Your task to perform on an android device: Empty the shopping cart on amazon.com. Image 0: 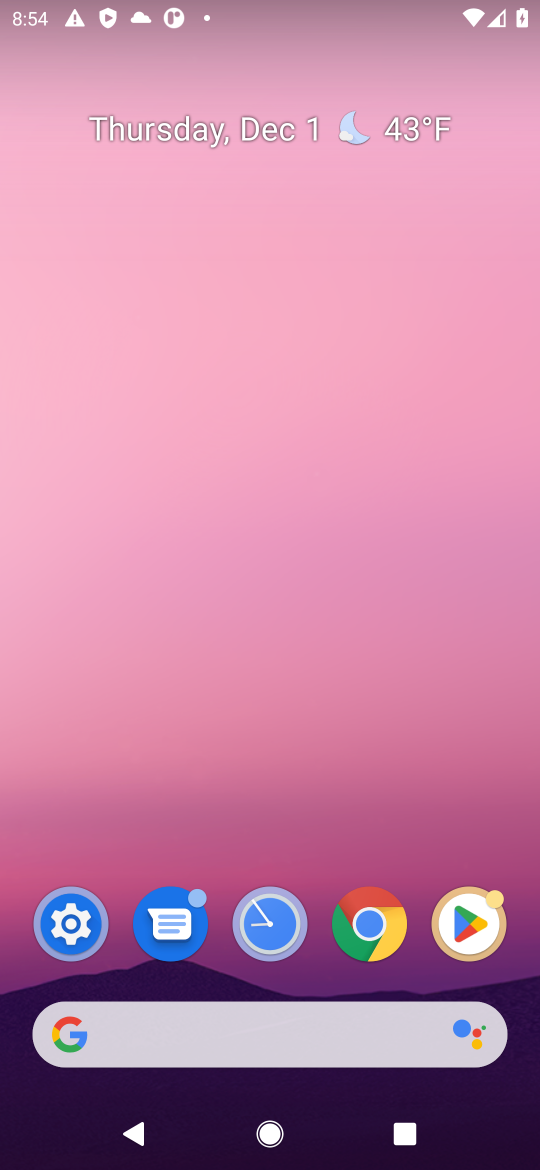
Step 0: click (320, 1049)
Your task to perform on an android device: Empty the shopping cart on amazon.com. Image 1: 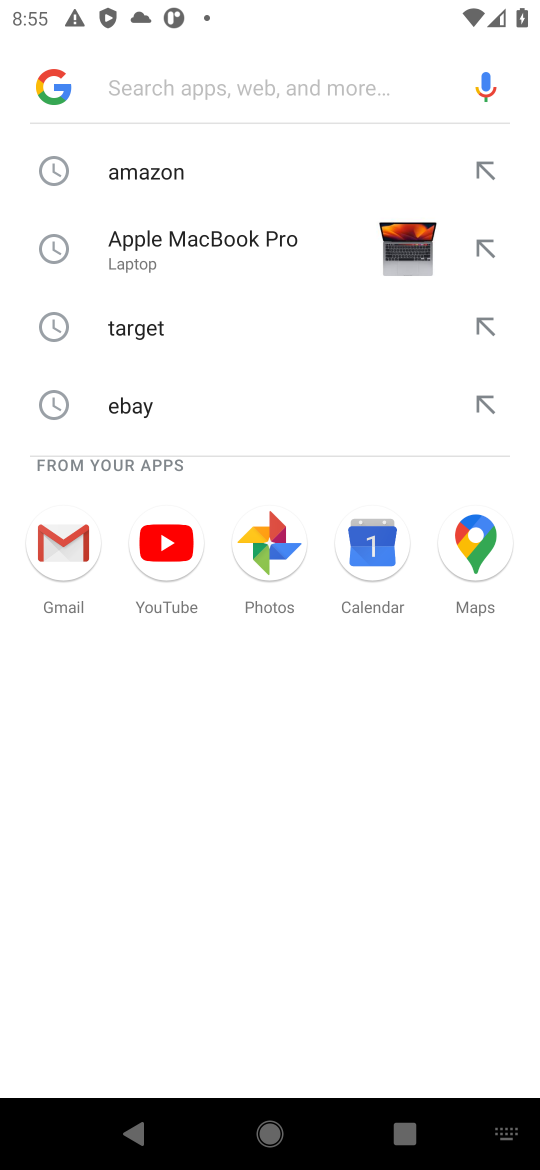
Step 1: type "amazon"
Your task to perform on an android device: Empty the shopping cart on amazon.com. Image 2: 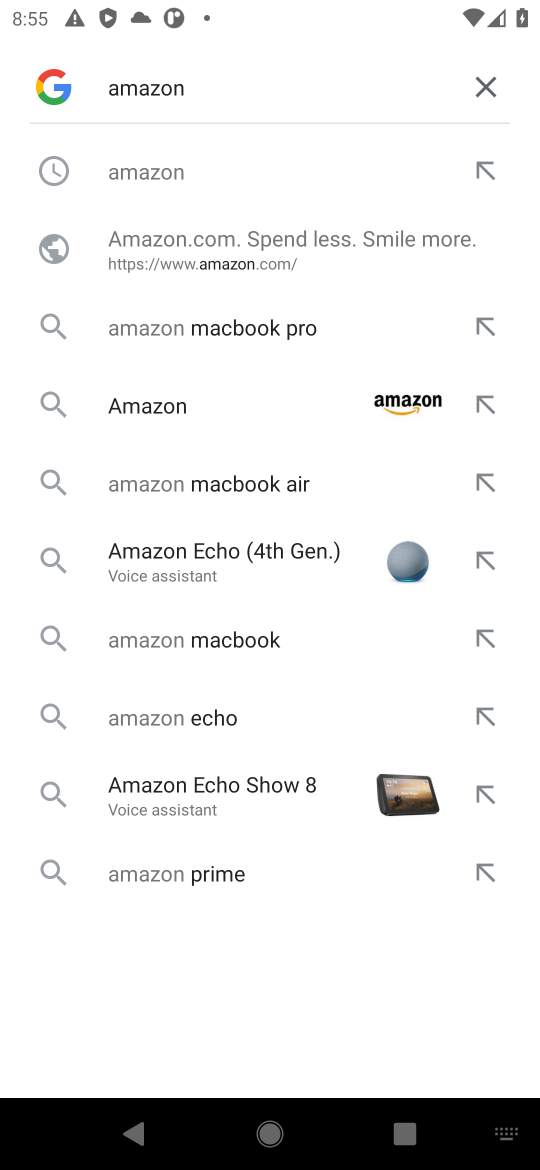
Step 2: click (221, 411)
Your task to perform on an android device: Empty the shopping cart on amazon.com. Image 3: 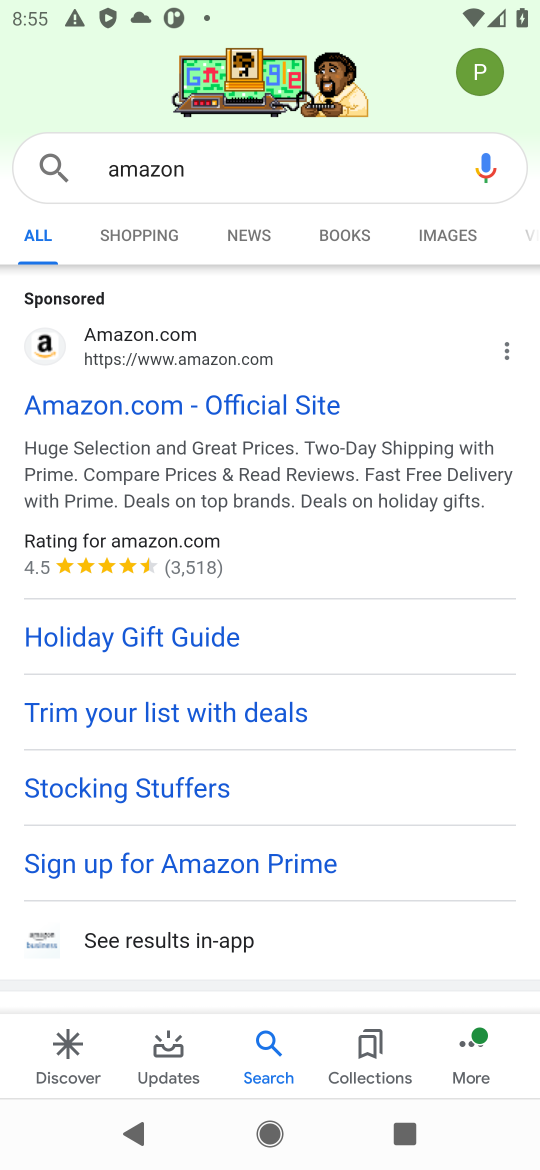
Step 3: click (189, 427)
Your task to perform on an android device: Empty the shopping cart on amazon.com. Image 4: 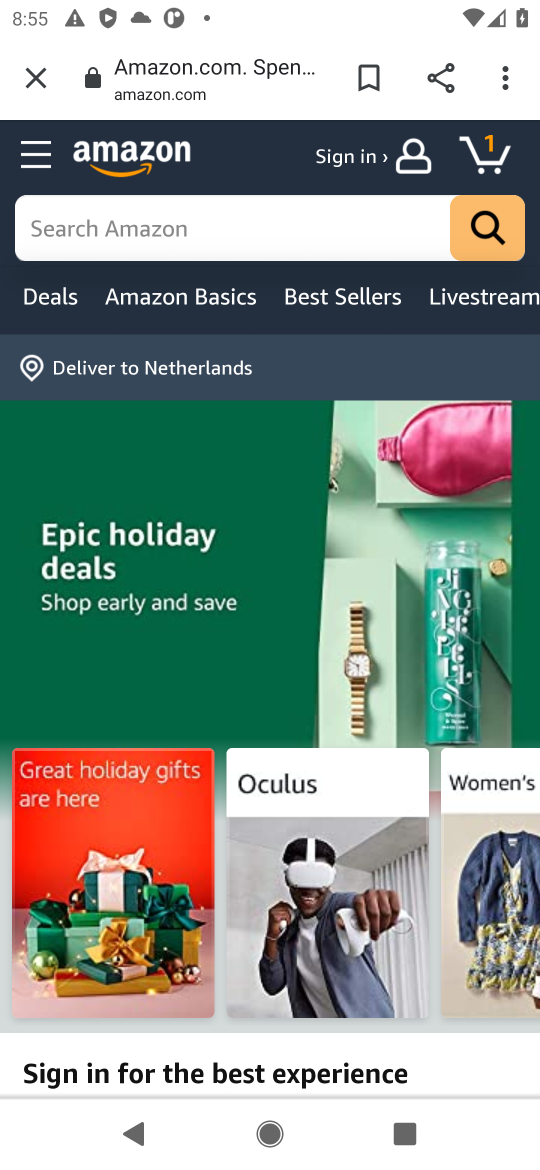
Step 4: click (296, 221)
Your task to perform on an android device: Empty the shopping cart on amazon.com. Image 5: 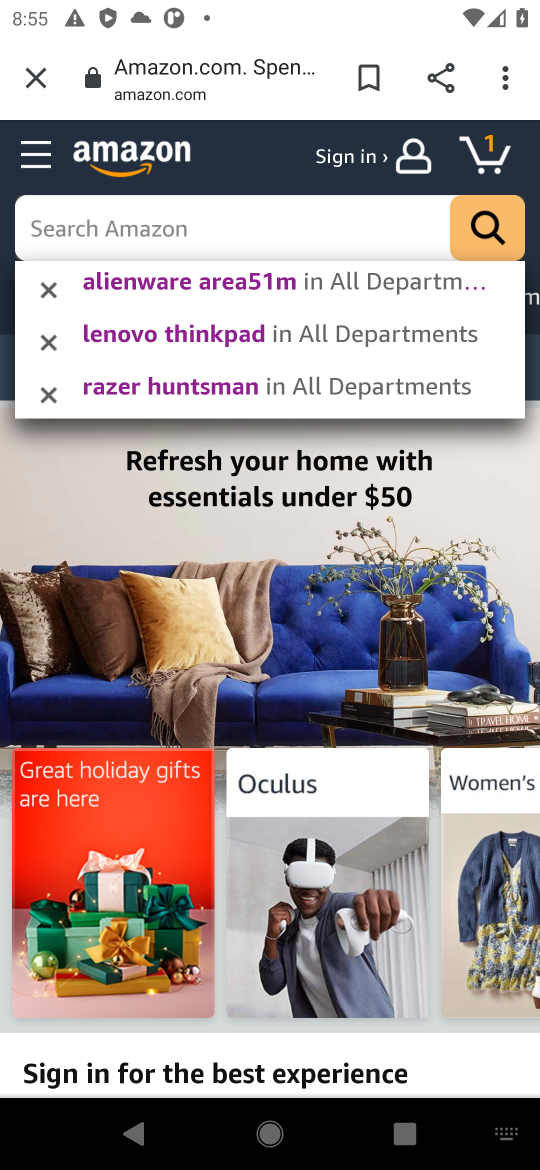
Step 5: type "s"
Your task to perform on an android device: Empty the shopping cart on amazon.com. Image 6: 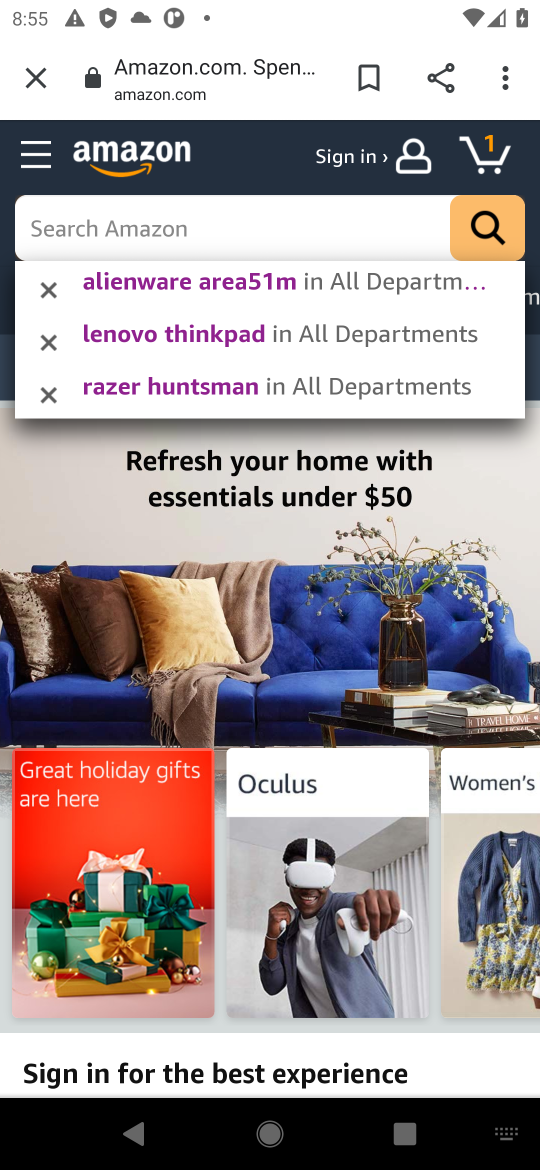
Step 6: click (460, 153)
Your task to perform on an android device: Empty the shopping cart on amazon.com. Image 7: 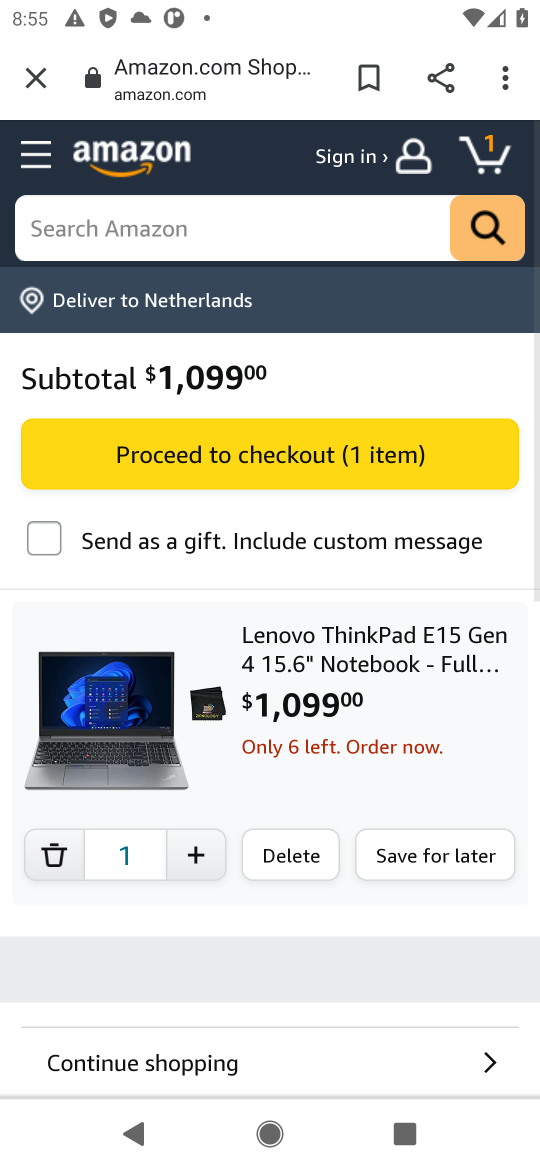
Step 7: task complete